Your task to perform on an android device: open app "eBay: The shopping marketplace" Image 0: 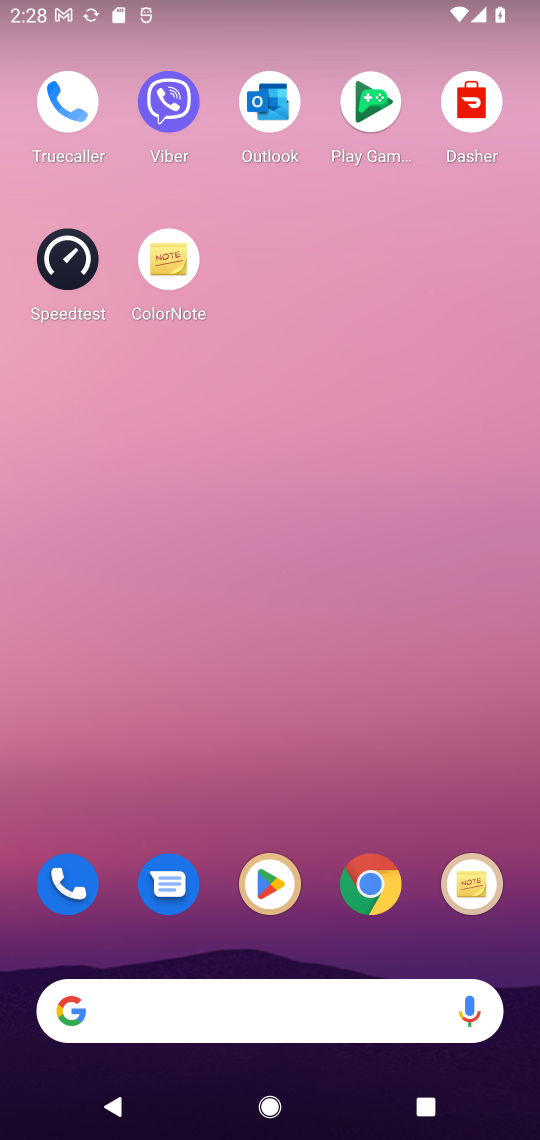
Step 0: click (272, 879)
Your task to perform on an android device: open app "eBay: The shopping marketplace" Image 1: 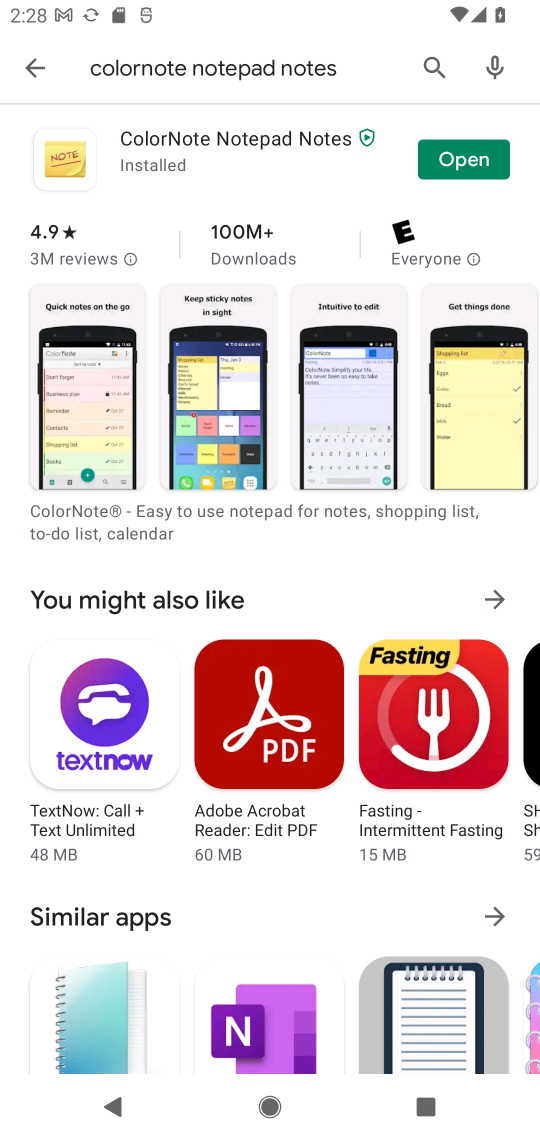
Step 1: click (433, 62)
Your task to perform on an android device: open app "eBay: The shopping marketplace" Image 2: 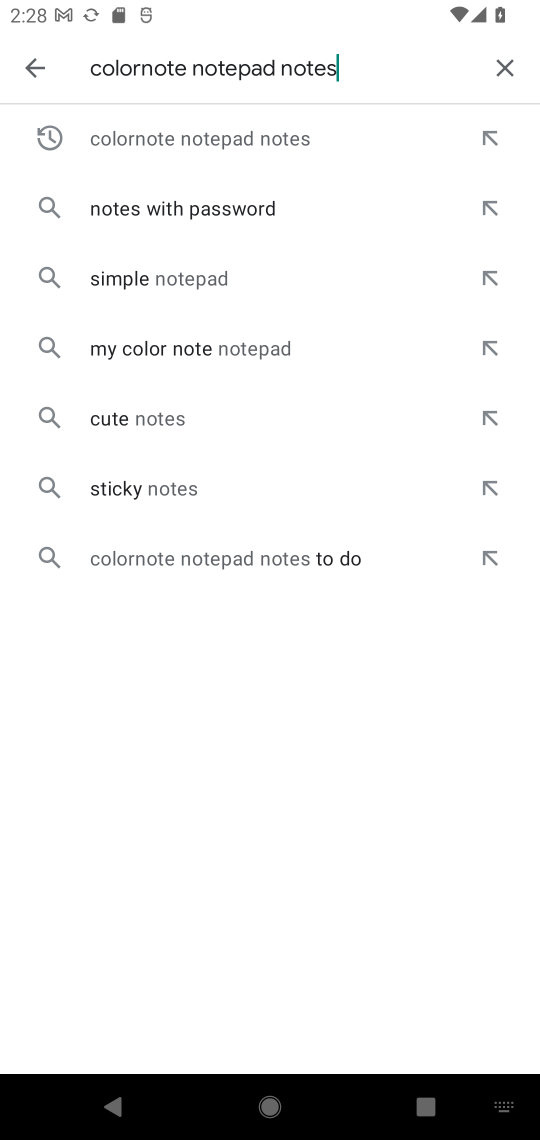
Step 2: click (506, 59)
Your task to perform on an android device: open app "eBay: The shopping marketplace" Image 3: 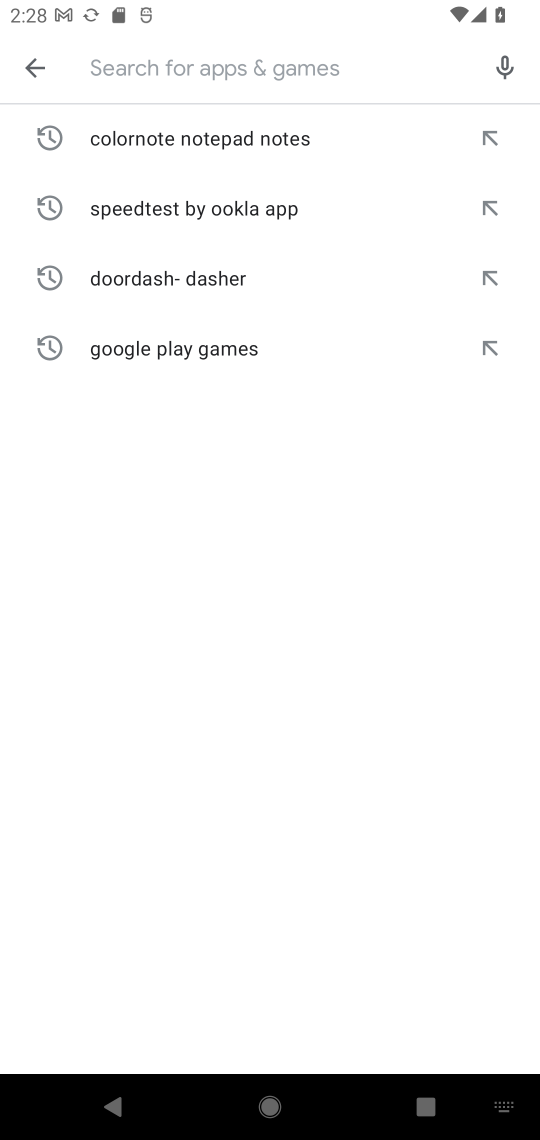
Step 3: type "ebay"
Your task to perform on an android device: open app "eBay: The shopping marketplace" Image 4: 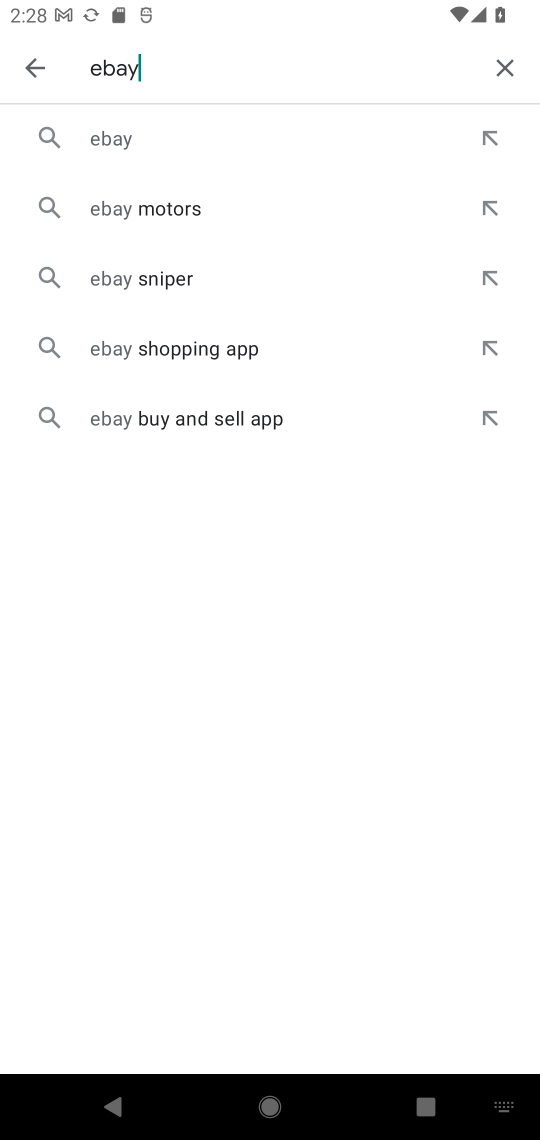
Step 4: click (119, 129)
Your task to perform on an android device: open app "eBay: The shopping marketplace" Image 5: 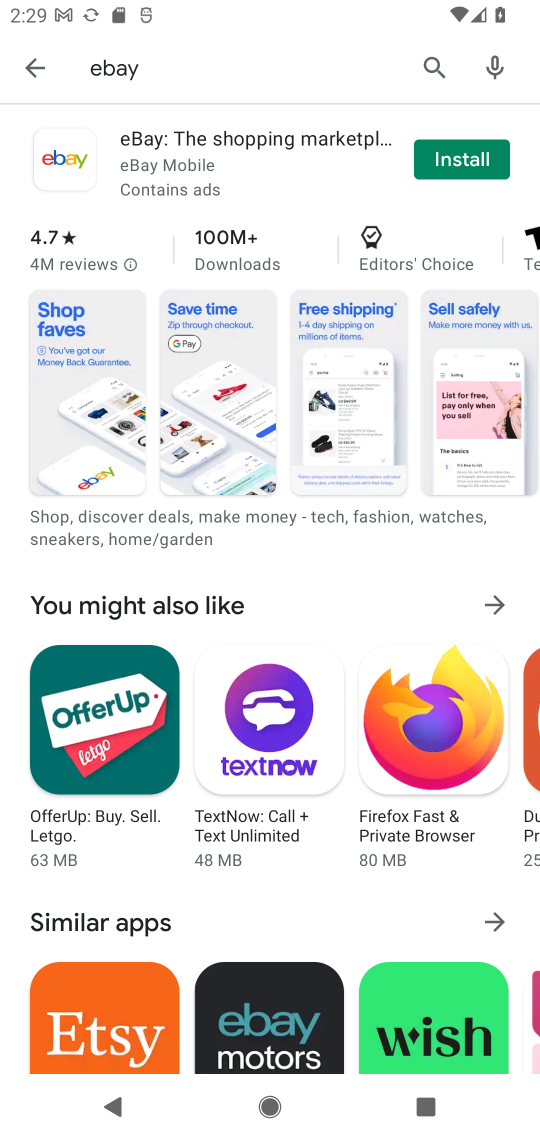
Step 5: task complete